Your task to perform on an android device: Open privacy settings Image 0: 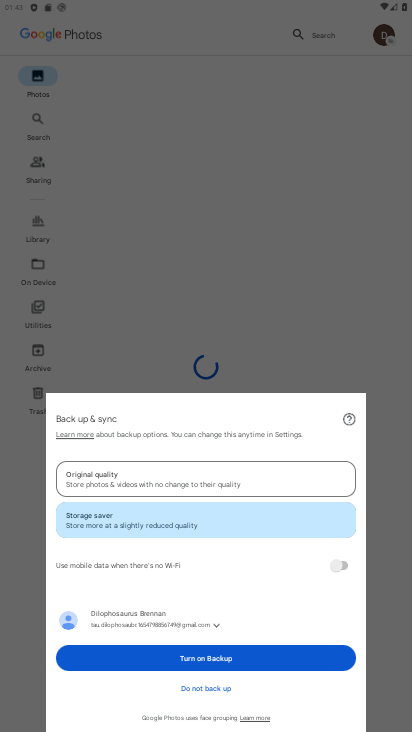
Step 0: press home button
Your task to perform on an android device: Open privacy settings Image 1: 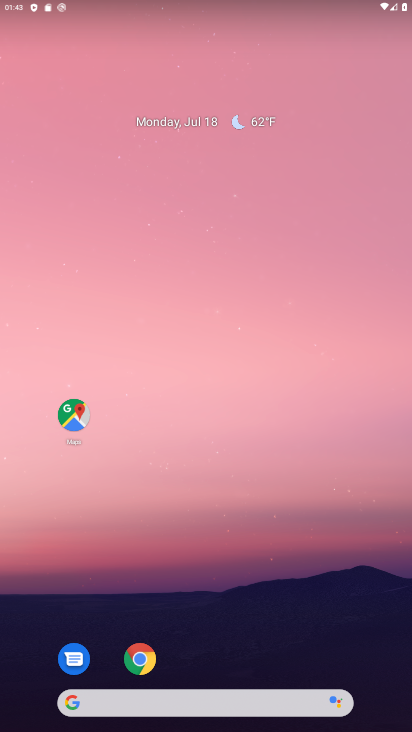
Step 1: drag from (315, 573) to (292, 98)
Your task to perform on an android device: Open privacy settings Image 2: 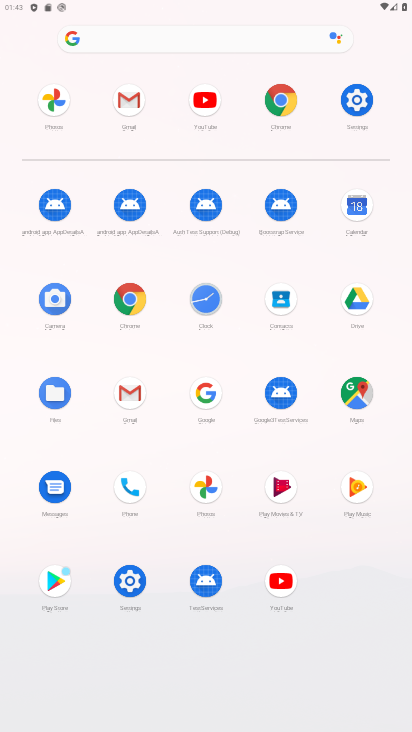
Step 2: click (356, 101)
Your task to perform on an android device: Open privacy settings Image 3: 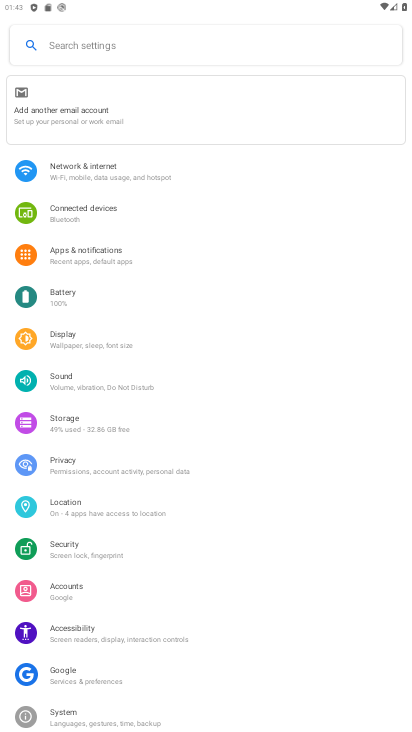
Step 3: click (83, 466)
Your task to perform on an android device: Open privacy settings Image 4: 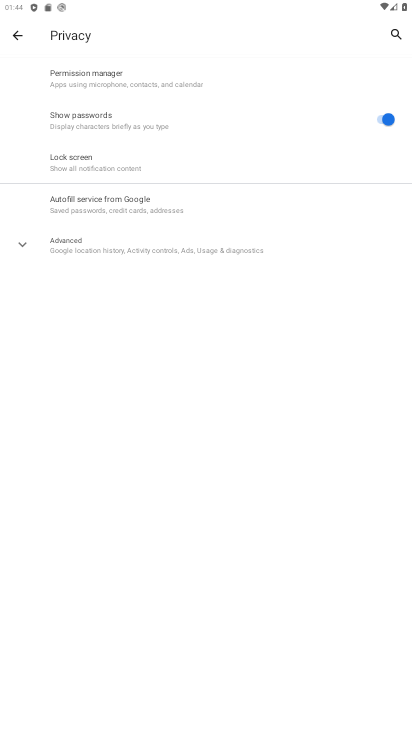
Step 4: task complete